Your task to perform on an android device: Search for sushi restaurants on Maps Image 0: 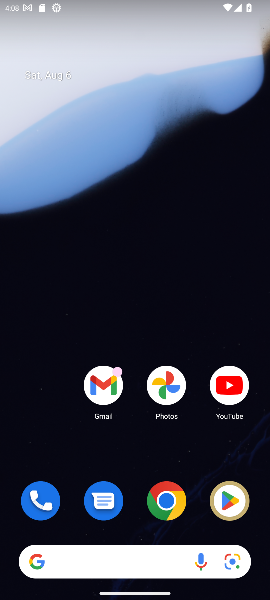
Step 0: drag from (24, 499) to (133, 226)
Your task to perform on an android device: Search for sushi restaurants on Maps Image 1: 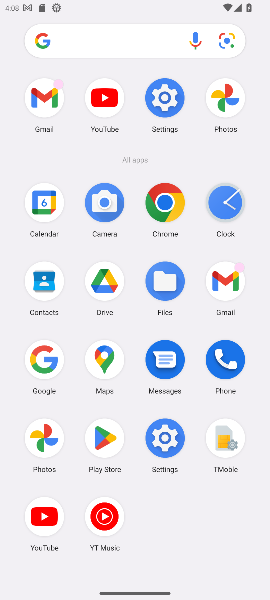
Step 1: click (99, 377)
Your task to perform on an android device: Search for sushi restaurants on Maps Image 2: 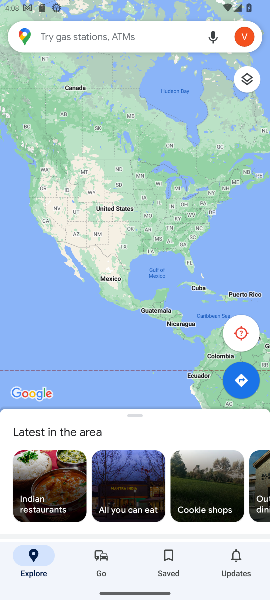
Step 2: click (106, 37)
Your task to perform on an android device: Search for sushi restaurants on Maps Image 3: 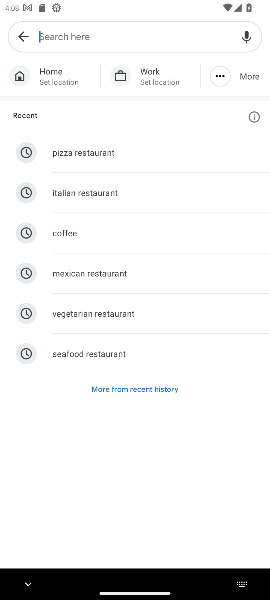
Step 3: type "sushi res"
Your task to perform on an android device: Search for sushi restaurants on Maps Image 4: 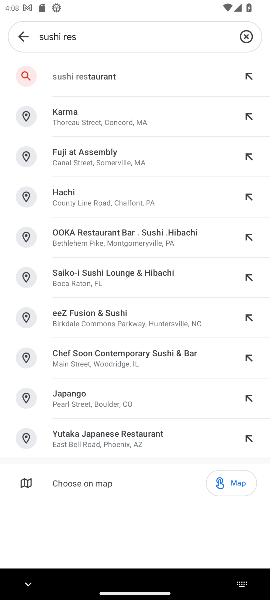
Step 4: click (131, 75)
Your task to perform on an android device: Search for sushi restaurants on Maps Image 5: 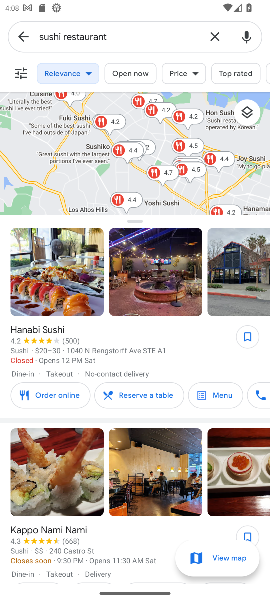
Step 5: task complete